Your task to perform on an android device: set the timer Image 0: 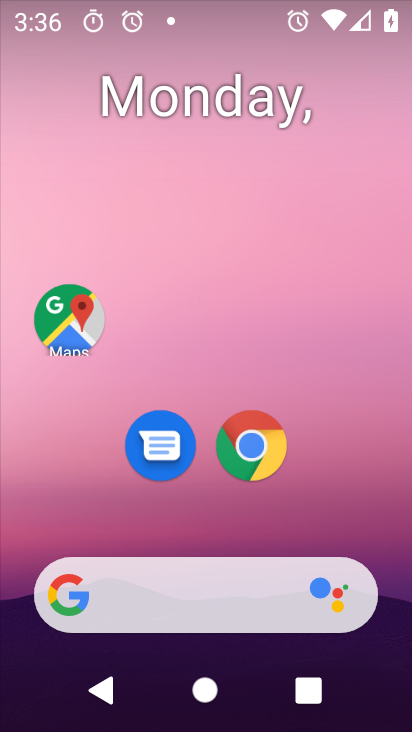
Step 0: drag from (224, 595) to (241, 258)
Your task to perform on an android device: set the timer Image 1: 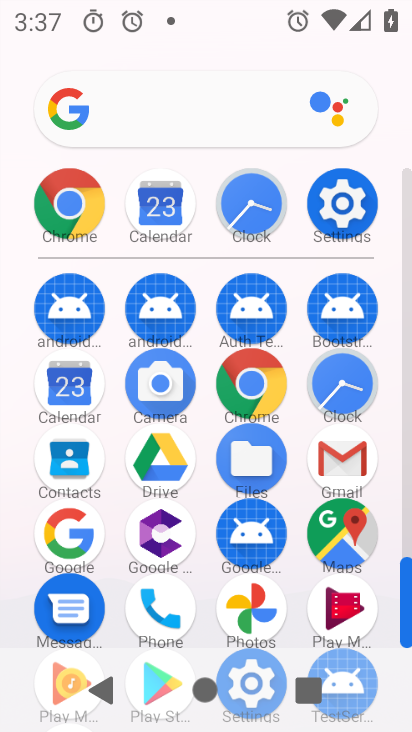
Step 1: click (233, 219)
Your task to perform on an android device: set the timer Image 2: 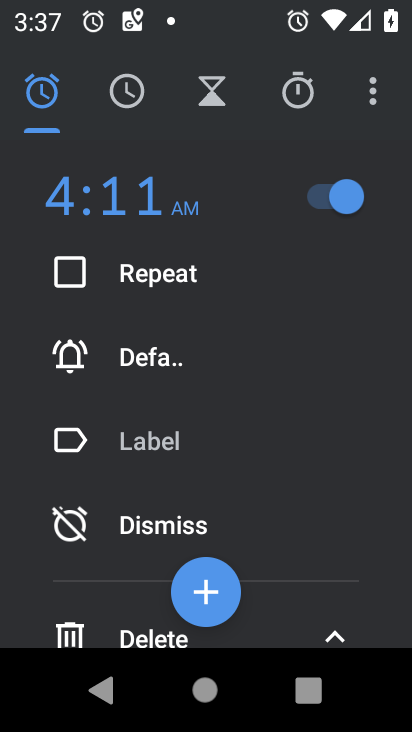
Step 2: click (226, 112)
Your task to perform on an android device: set the timer Image 3: 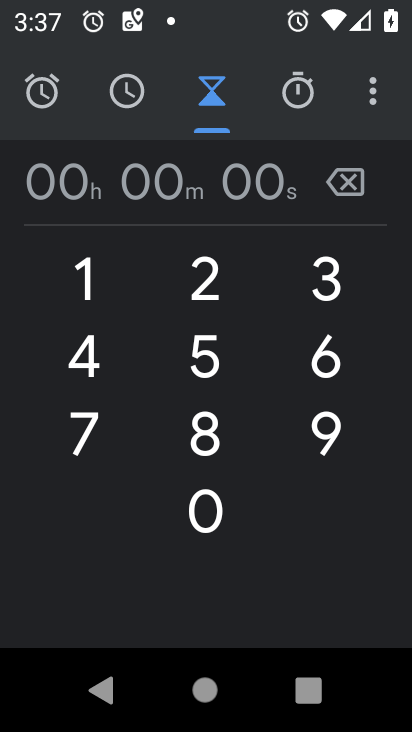
Step 3: click (149, 367)
Your task to perform on an android device: set the timer Image 4: 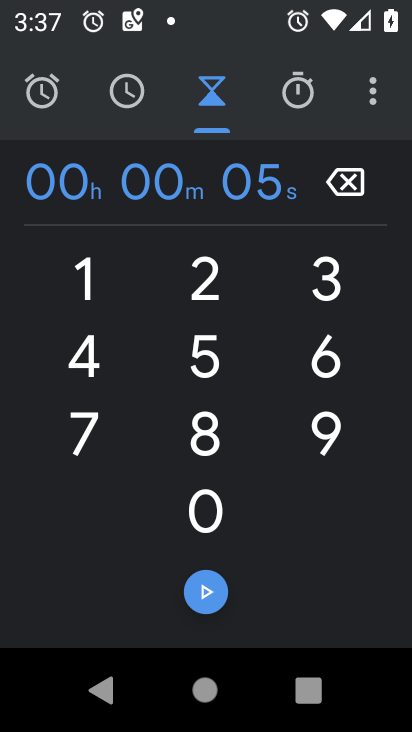
Step 4: click (128, 358)
Your task to perform on an android device: set the timer Image 5: 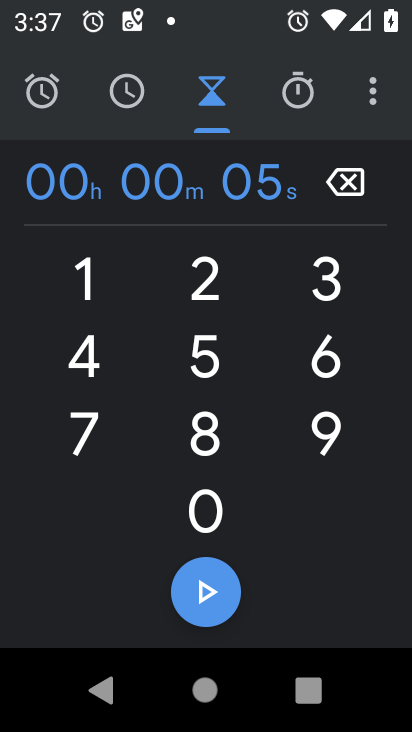
Step 5: click (128, 358)
Your task to perform on an android device: set the timer Image 6: 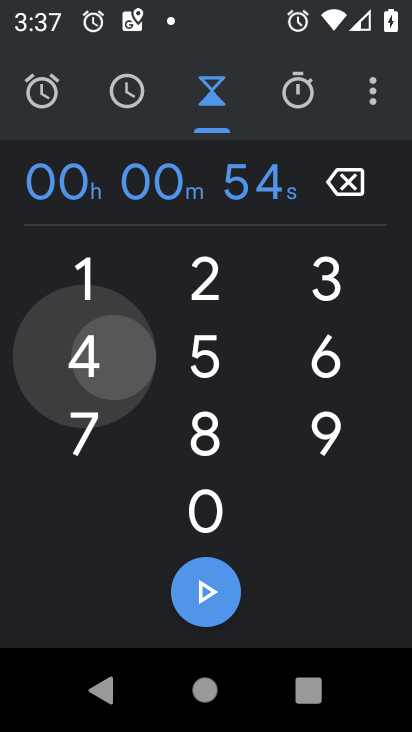
Step 6: click (128, 358)
Your task to perform on an android device: set the timer Image 7: 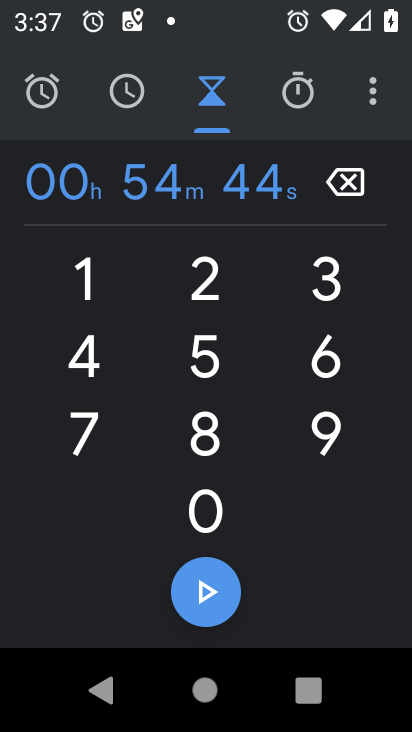
Step 7: click (214, 589)
Your task to perform on an android device: set the timer Image 8: 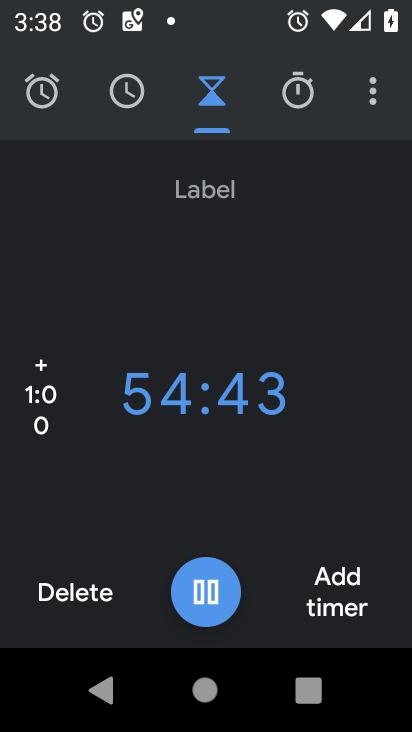
Step 8: task complete